Your task to perform on an android device: create a new album in the google photos Image 0: 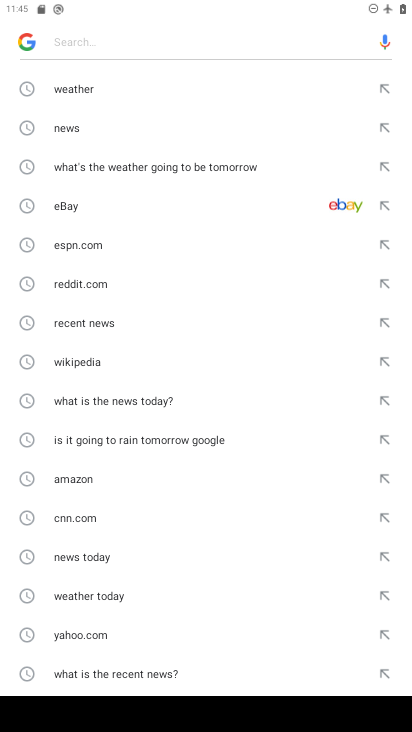
Step 0: press home button
Your task to perform on an android device: create a new album in the google photos Image 1: 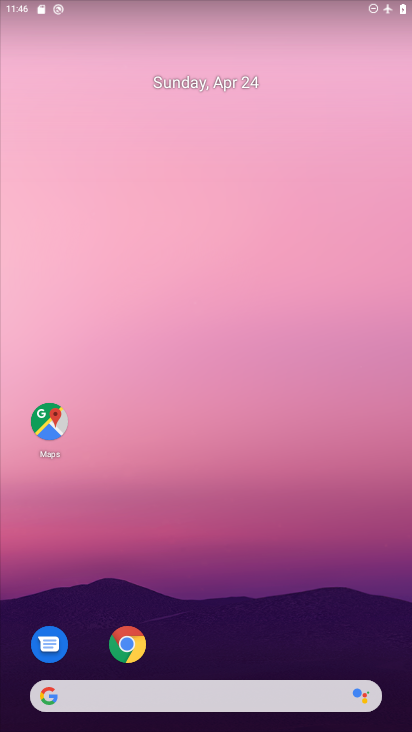
Step 1: drag from (187, 650) to (282, 154)
Your task to perform on an android device: create a new album in the google photos Image 2: 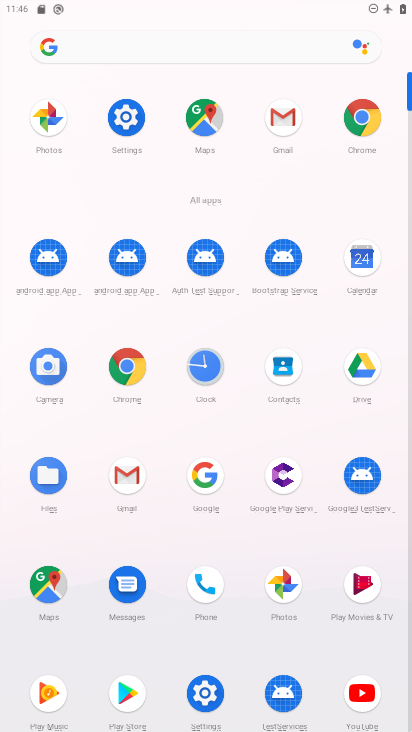
Step 2: click (284, 586)
Your task to perform on an android device: create a new album in the google photos Image 3: 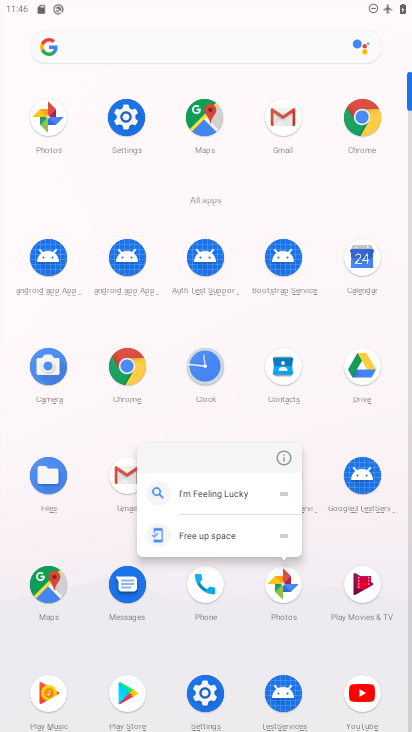
Step 3: click (289, 588)
Your task to perform on an android device: create a new album in the google photos Image 4: 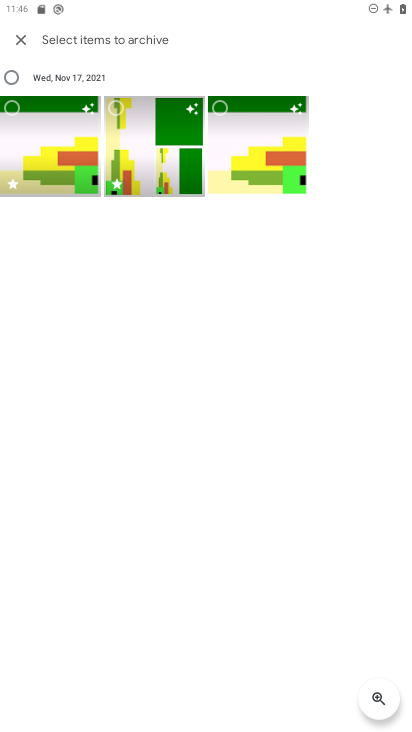
Step 4: click (24, 36)
Your task to perform on an android device: create a new album in the google photos Image 5: 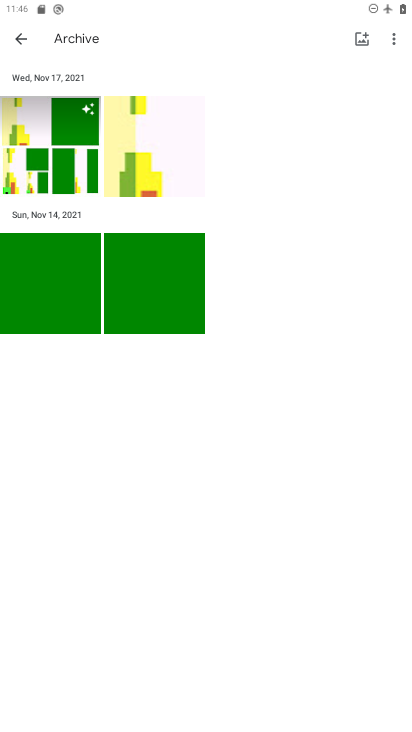
Step 5: click (24, 36)
Your task to perform on an android device: create a new album in the google photos Image 6: 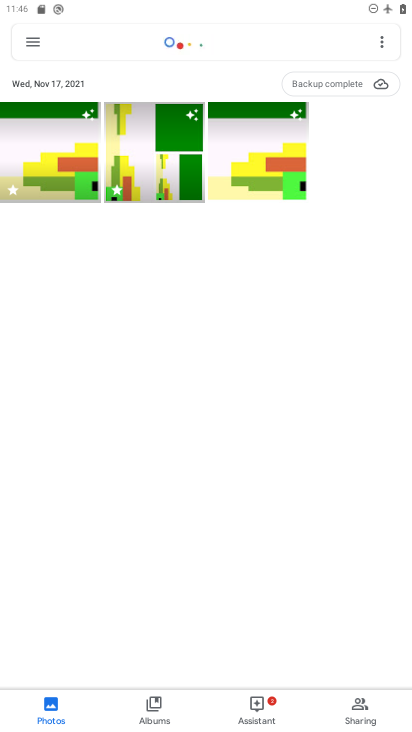
Step 6: click (166, 711)
Your task to perform on an android device: create a new album in the google photos Image 7: 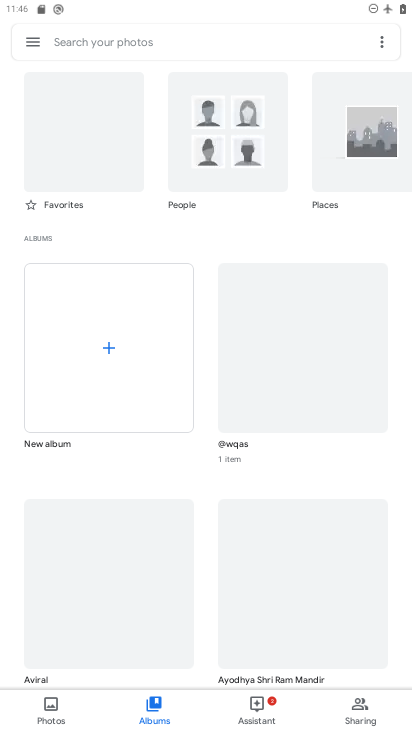
Step 7: click (105, 343)
Your task to perform on an android device: create a new album in the google photos Image 8: 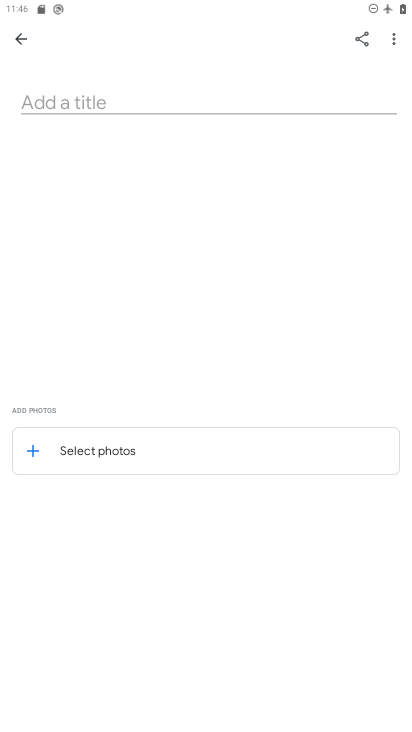
Step 8: click (150, 96)
Your task to perform on an android device: create a new album in the google photos Image 9: 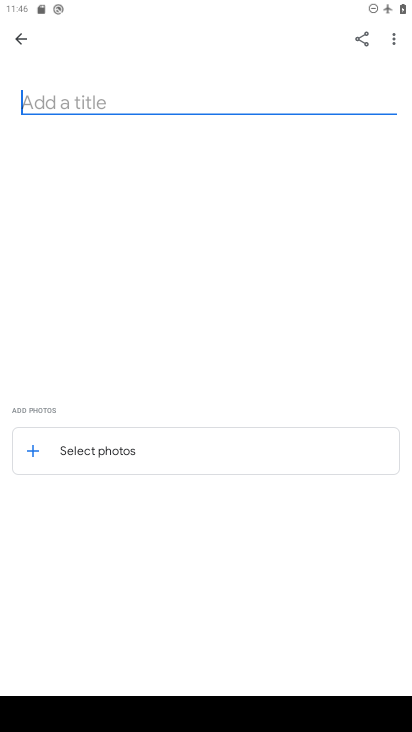
Step 9: type "@Aaa"
Your task to perform on an android device: create a new album in the google photos Image 10: 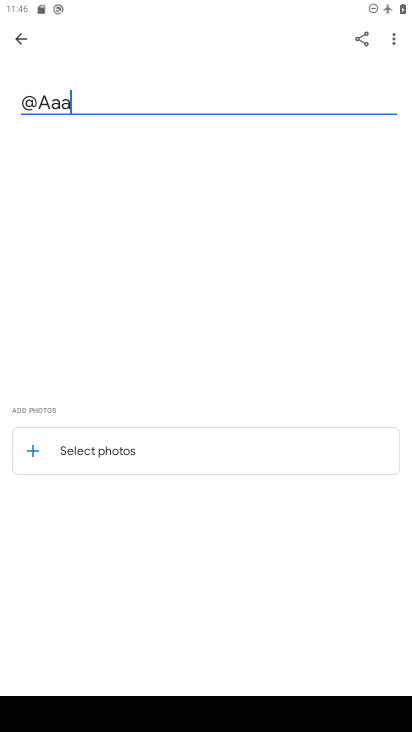
Step 10: click (25, 442)
Your task to perform on an android device: create a new album in the google photos Image 11: 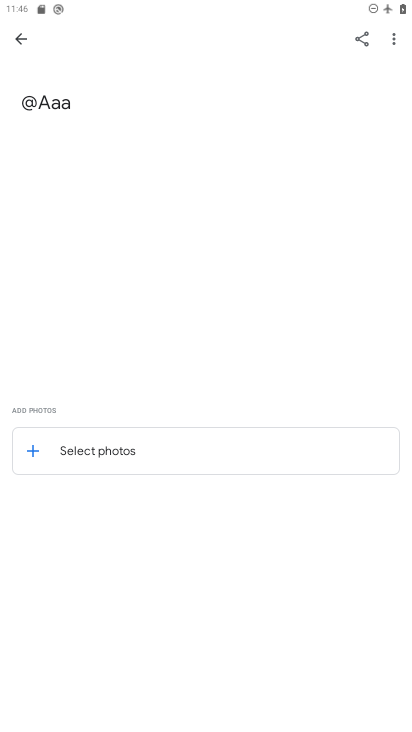
Step 11: click (43, 448)
Your task to perform on an android device: create a new album in the google photos Image 12: 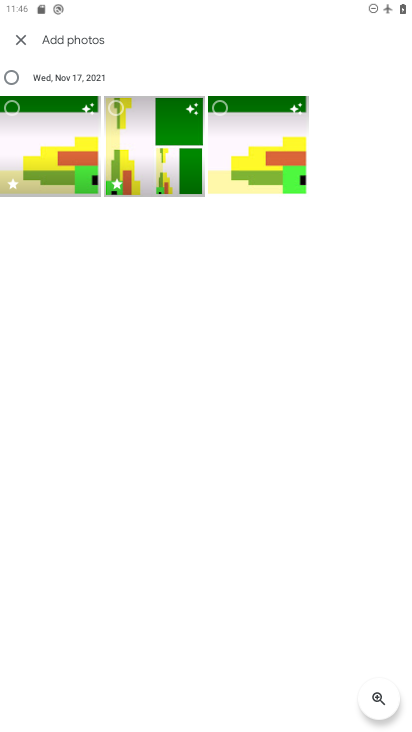
Step 12: click (18, 122)
Your task to perform on an android device: create a new album in the google photos Image 13: 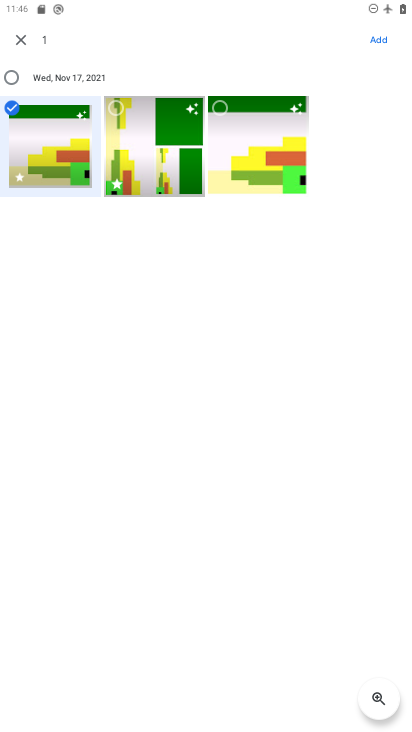
Step 13: click (128, 121)
Your task to perform on an android device: create a new album in the google photos Image 14: 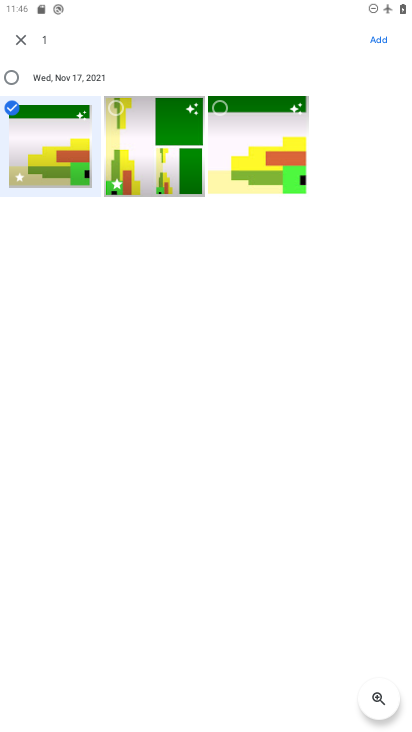
Step 14: click (128, 122)
Your task to perform on an android device: create a new album in the google photos Image 15: 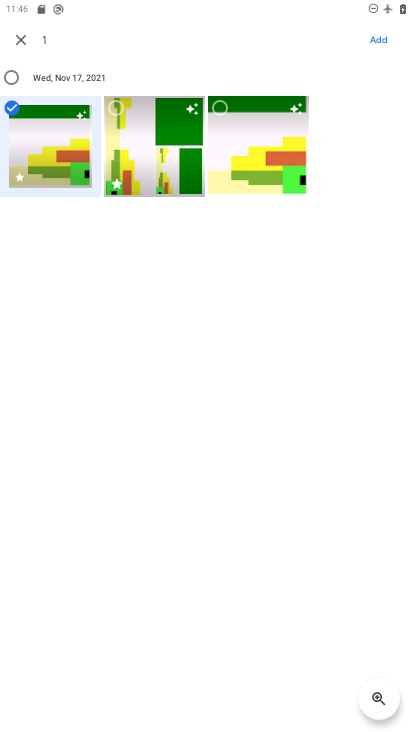
Step 15: click (251, 136)
Your task to perform on an android device: create a new album in the google photos Image 16: 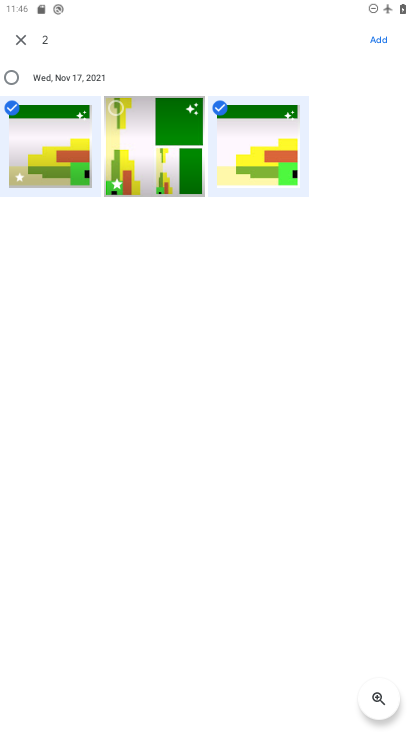
Step 16: click (381, 42)
Your task to perform on an android device: create a new album in the google photos Image 17: 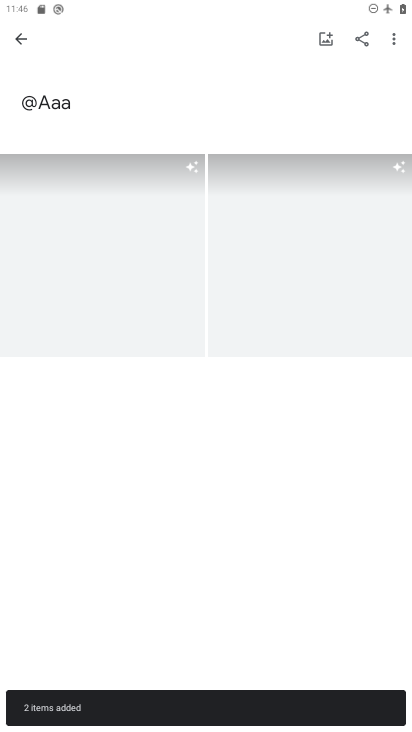
Step 17: task complete